Your task to perform on an android device: Go to network settings Image 0: 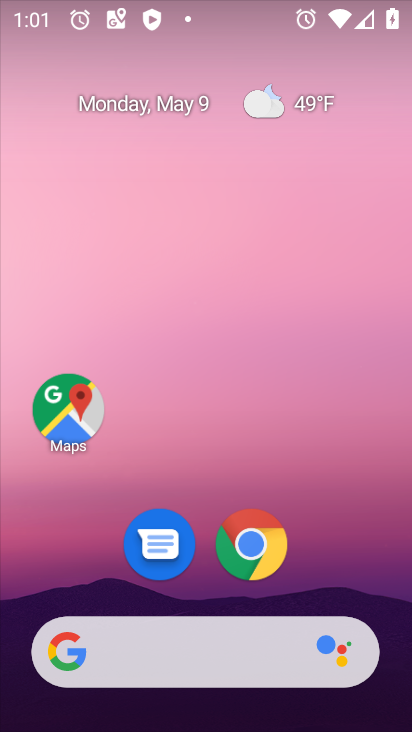
Step 0: drag from (199, 662) to (197, 226)
Your task to perform on an android device: Go to network settings Image 1: 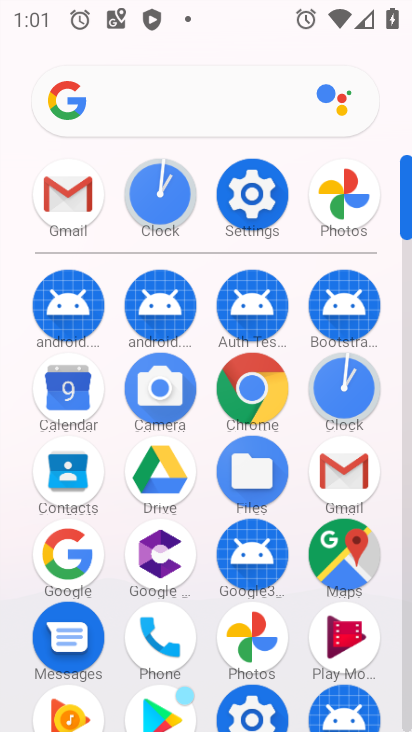
Step 1: click (264, 214)
Your task to perform on an android device: Go to network settings Image 2: 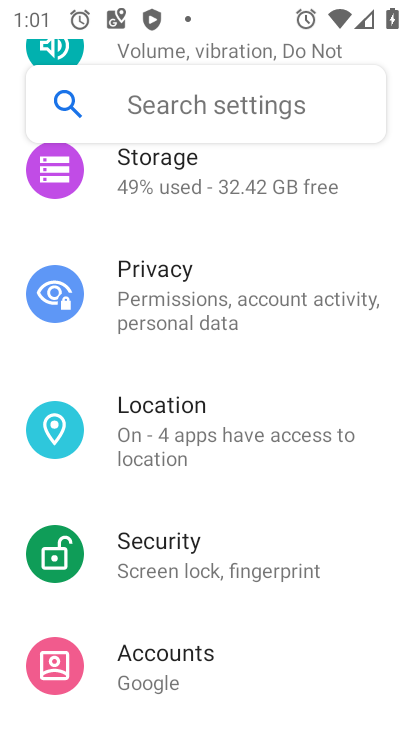
Step 2: drag from (223, 163) to (186, 595)
Your task to perform on an android device: Go to network settings Image 3: 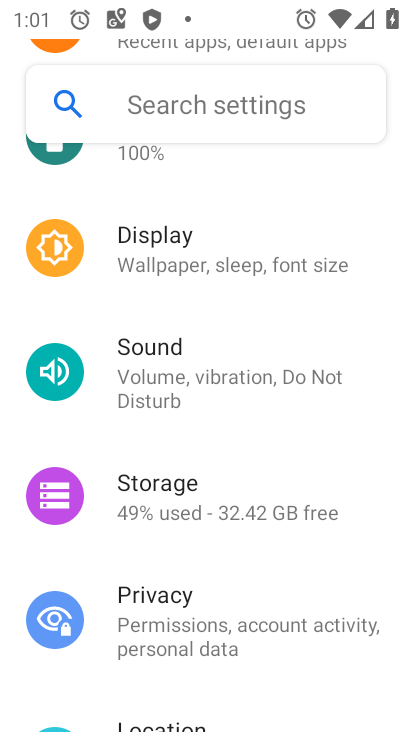
Step 3: drag from (233, 288) to (191, 727)
Your task to perform on an android device: Go to network settings Image 4: 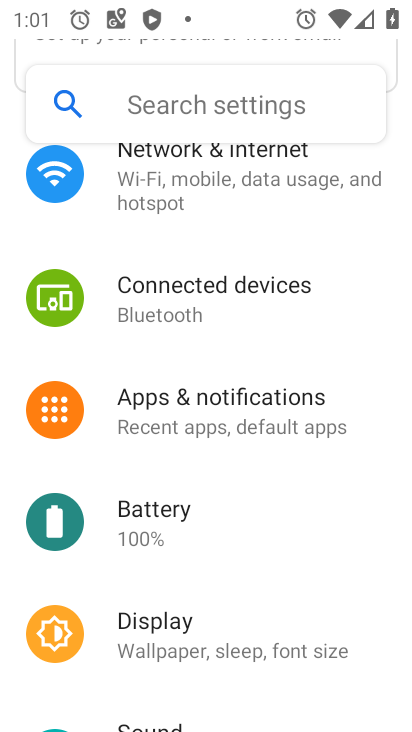
Step 4: click (141, 177)
Your task to perform on an android device: Go to network settings Image 5: 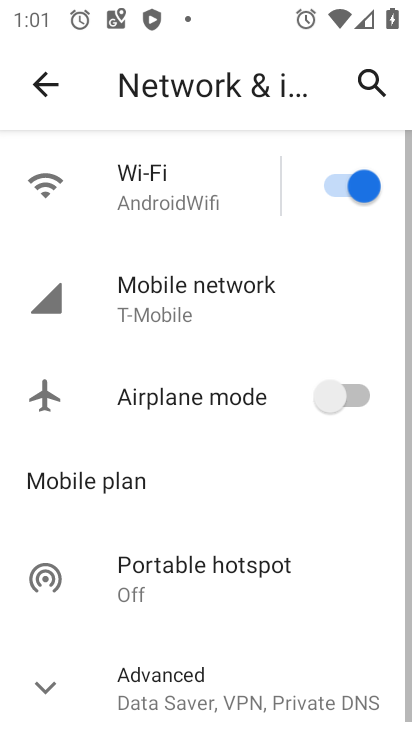
Step 5: task complete